Your task to perform on an android device: open the mobile data screen to see how much data has been used Image 0: 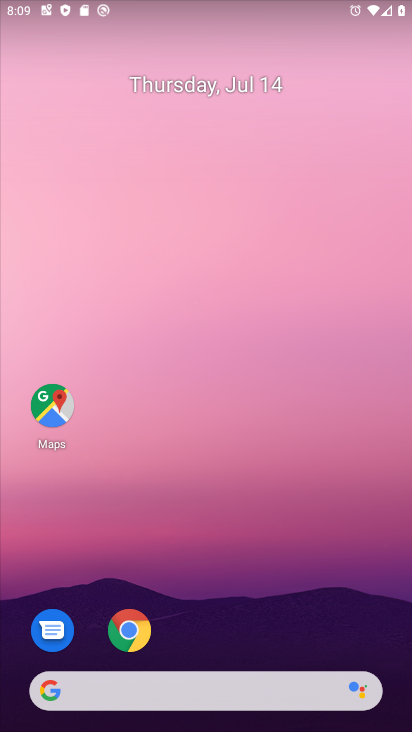
Step 0: drag from (162, 717) to (177, 4)
Your task to perform on an android device: open the mobile data screen to see how much data has been used Image 1: 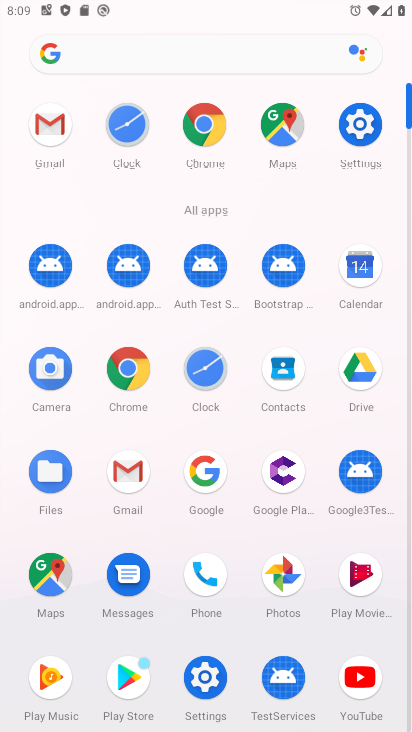
Step 1: click (359, 132)
Your task to perform on an android device: open the mobile data screen to see how much data has been used Image 2: 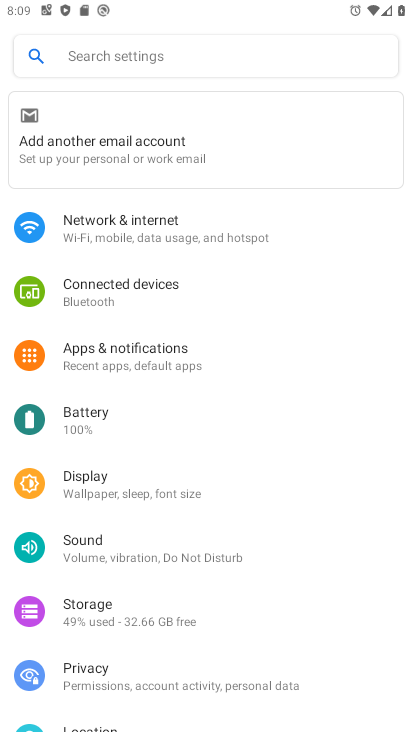
Step 2: click (94, 235)
Your task to perform on an android device: open the mobile data screen to see how much data has been used Image 3: 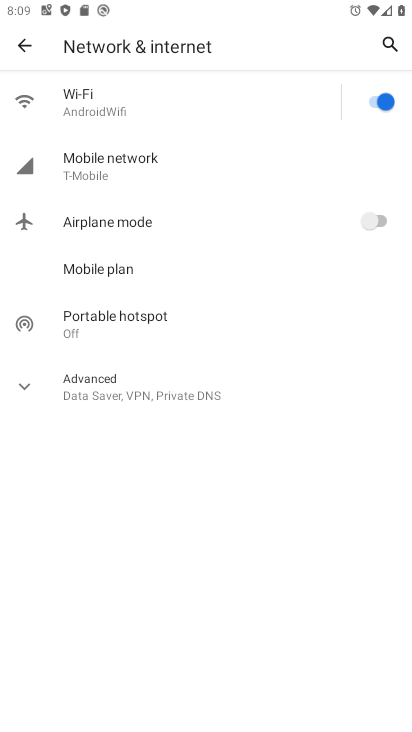
Step 3: click (88, 161)
Your task to perform on an android device: open the mobile data screen to see how much data has been used Image 4: 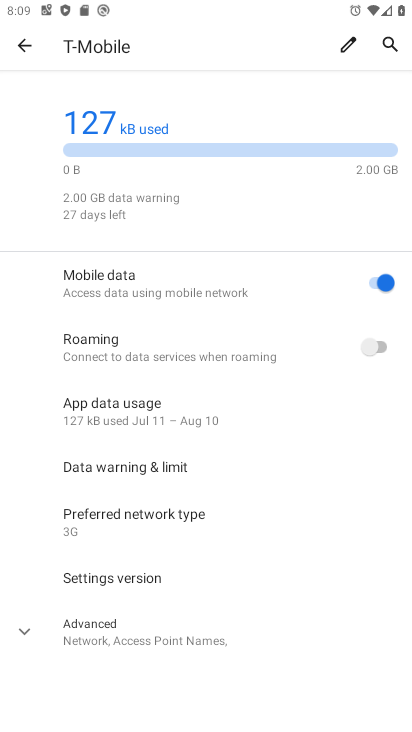
Step 4: click (101, 410)
Your task to perform on an android device: open the mobile data screen to see how much data has been used Image 5: 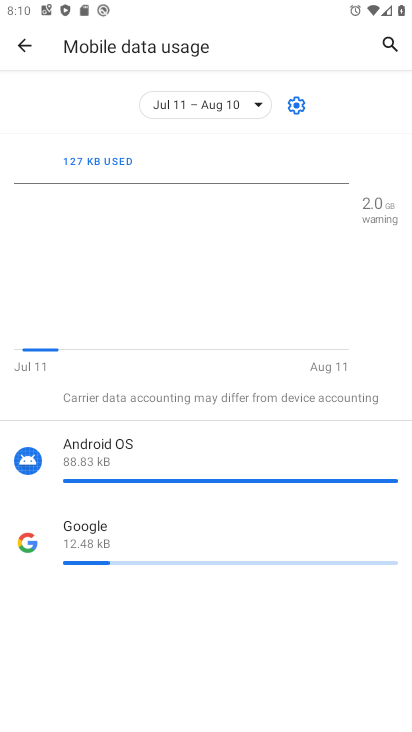
Step 5: task complete